Your task to perform on an android device: turn on sleep mode Image 0: 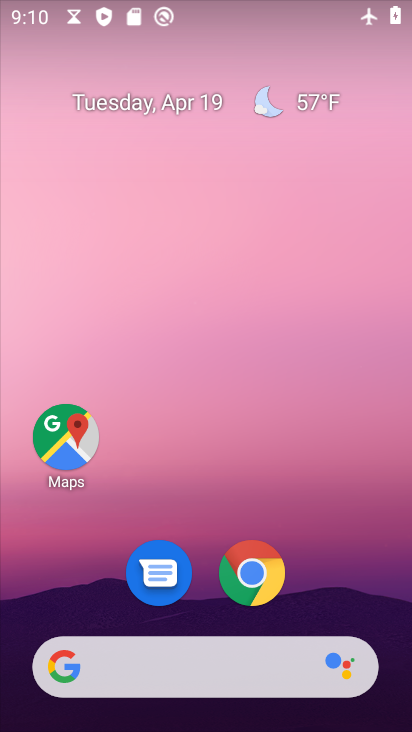
Step 0: drag from (344, 532) to (298, 119)
Your task to perform on an android device: turn on sleep mode Image 1: 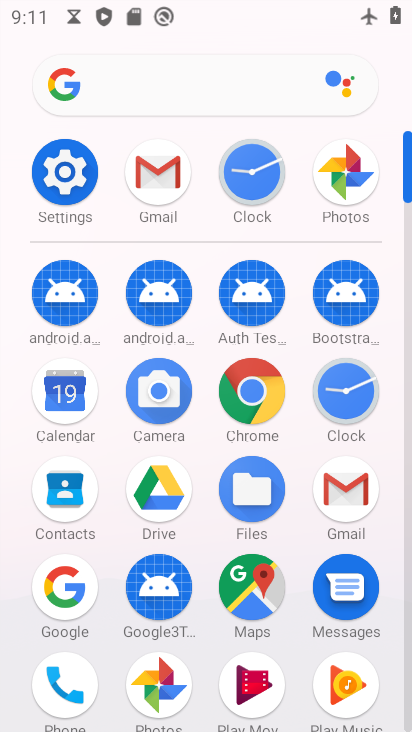
Step 1: click (92, 158)
Your task to perform on an android device: turn on sleep mode Image 2: 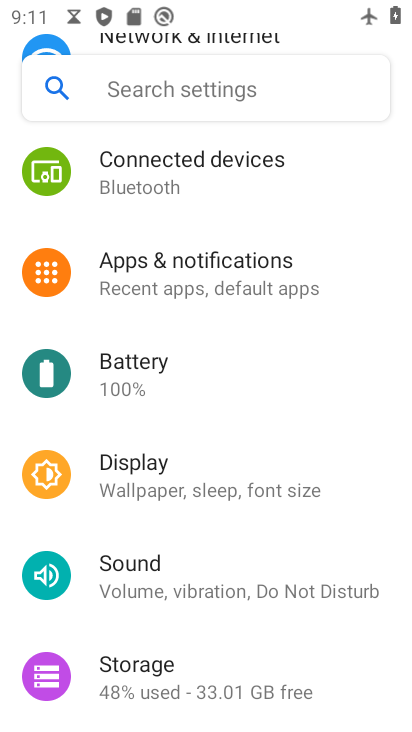
Step 2: click (237, 498)
Your task to perform on an android device: turn on sleep mode Image 3: 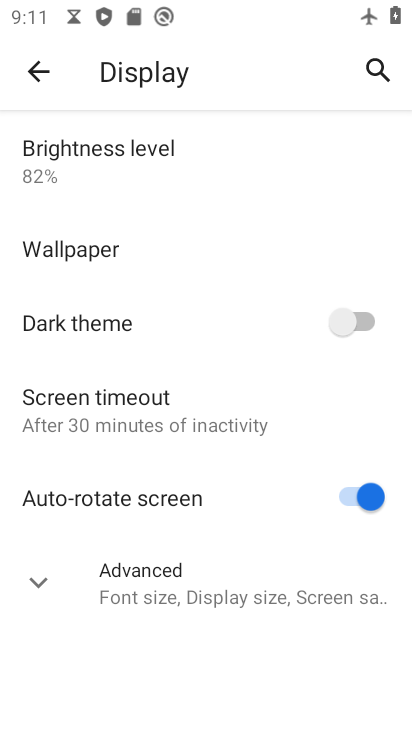
Step 3: click (268, 583)
Your task to perform on an android device: turn on sleep mode Image 4: 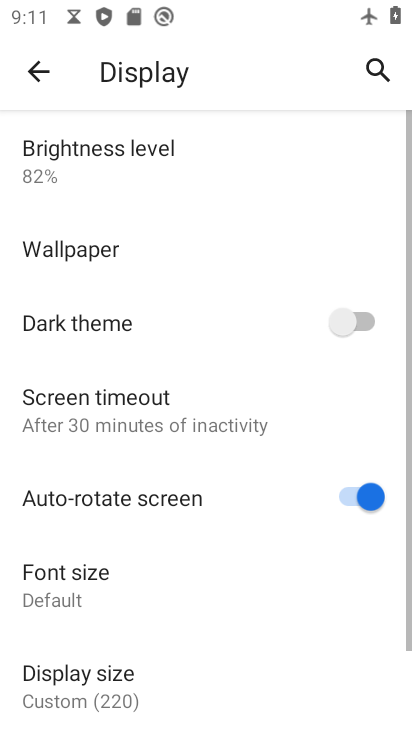
Step 4: task complete